Your task to perform on an android device: Open notification settings Image 0: 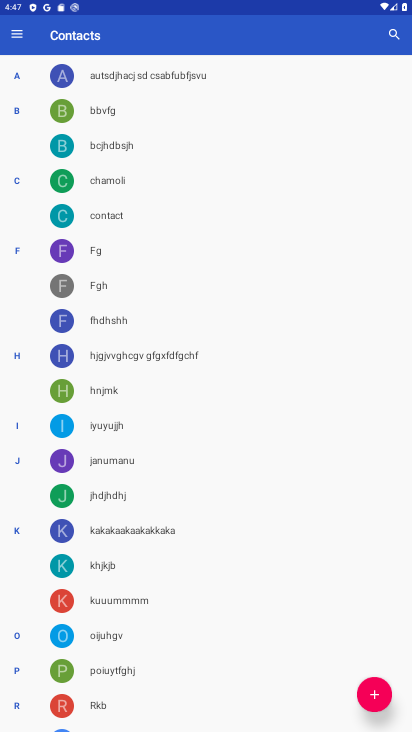
Step 0: press home button
Your task to perform on an android device: Open notification settings Image 1: 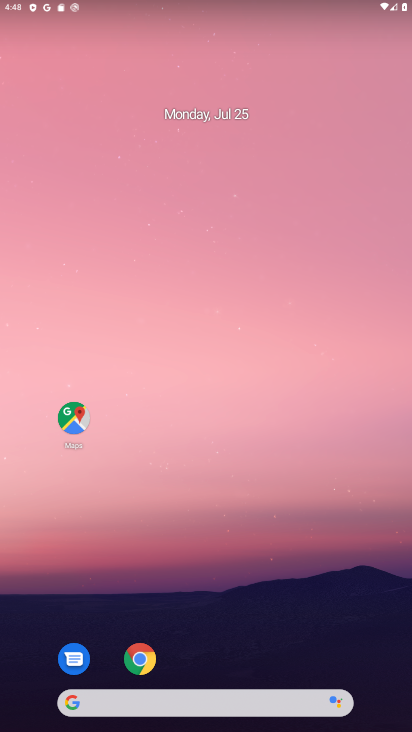
Step 1: drag from (172, 431) to (1, 54)
Your task to perform on an android device: Open notification settings Image 2: 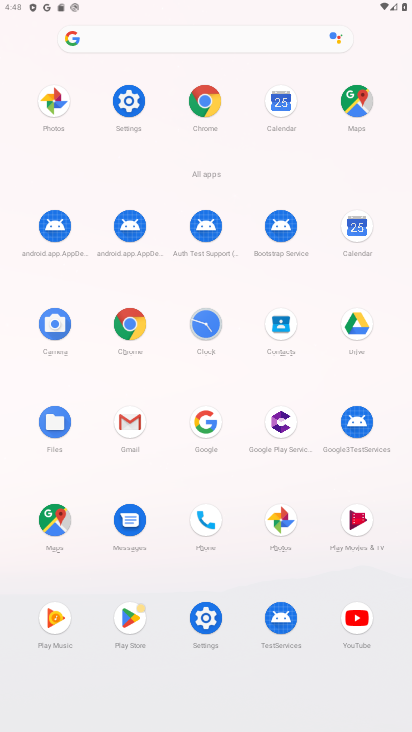
Step 2: click (126, 95)
Your task to perform on an android device: Open notification settings Image 3: 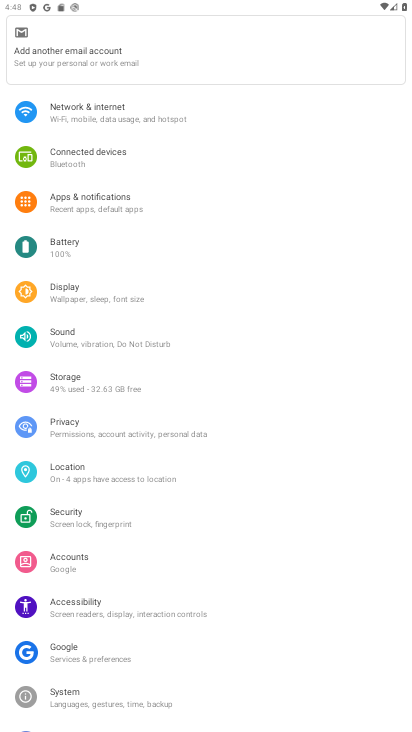
Step 3: click (80, 201)
Your task to perform on an android device: Open notification settings Image 4: 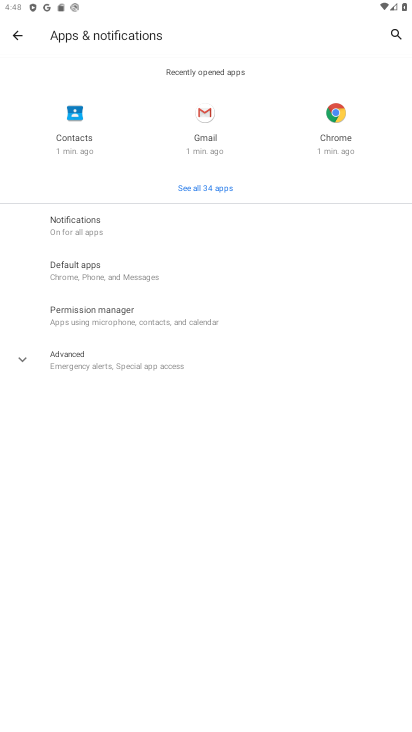
Step 4: task complete